Your task to perform on an android device: empty trash in google photos Image 0: 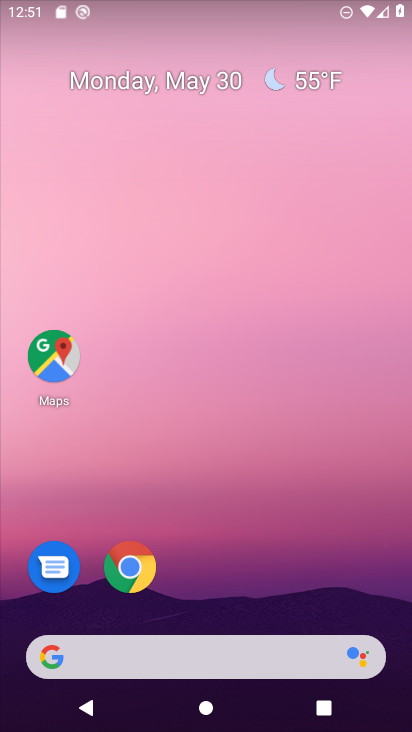
Step 0: drag from (209, 620) to (207, 119)
Your task to perform on an android device: empty trash in google photos Image 1: 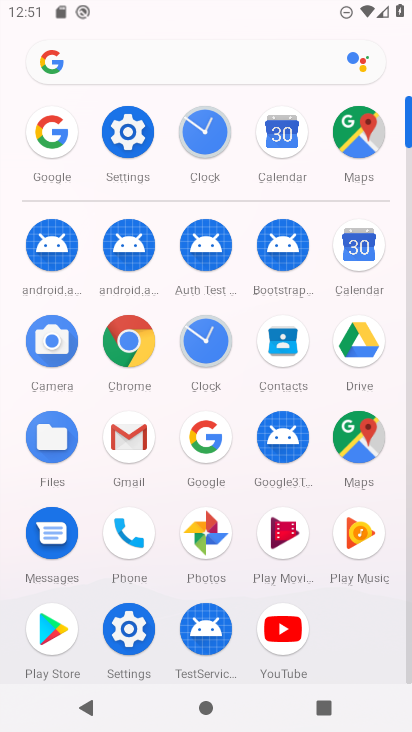
Step 1: click (201, 531)
Your task to perform on an android device: empty trash in google photos Image 2: 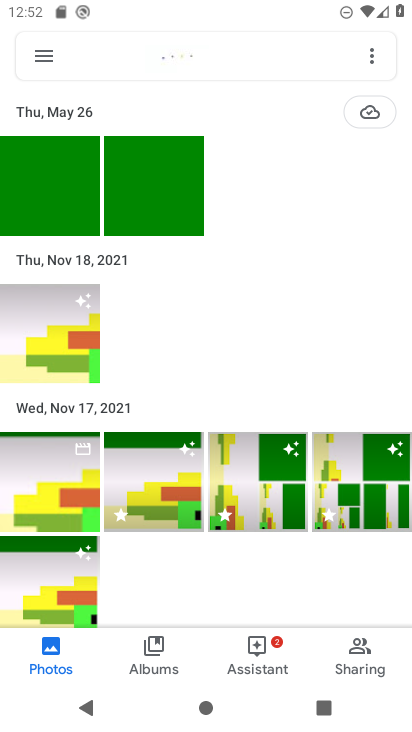
Step 2: drag from (185, 575) to (201, 188)
Your task to perform on an android device: empty trash in google photos Image 3: 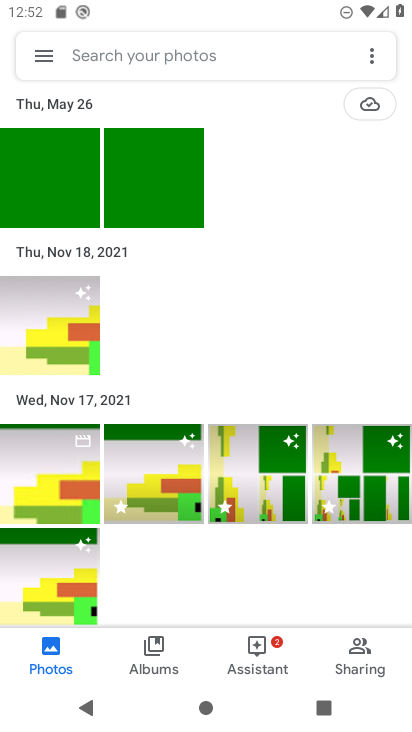
Step 3: drag from (199, 574) to (222, 213)
Your task to perform on an android device: empty trash in google photos Image 4: 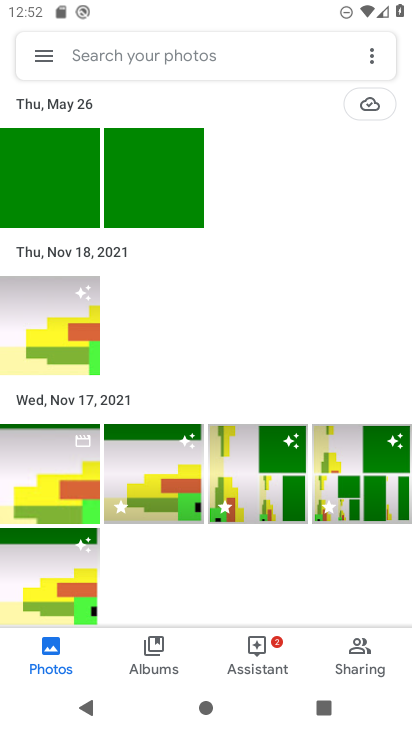
Step 4: click (363, 653)
Your task to perform on an android device: empty trash in google photos Image 5: 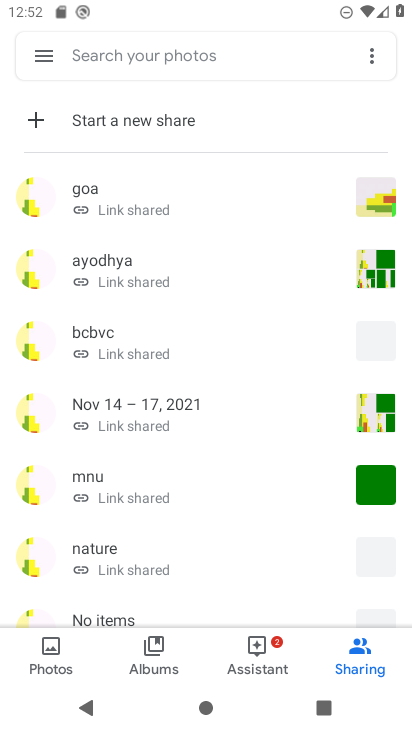
Step 5: click (44, 44)
Your task to perform on an android device: empty trash in google photos Image 6: 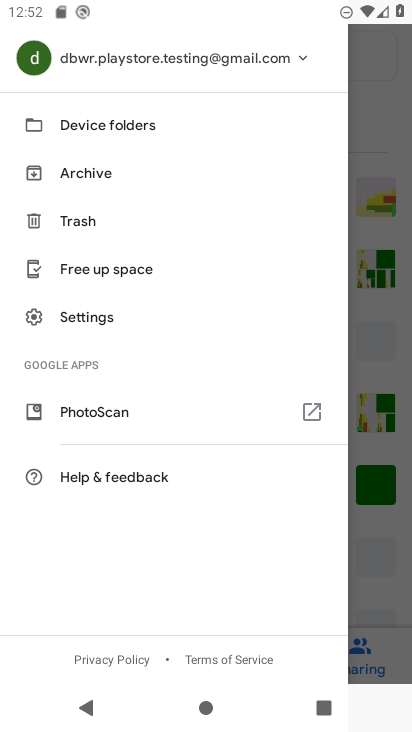
Step 6: click (94, 212)
Your task to perform on an android device: empty trash in google photos Image 7: 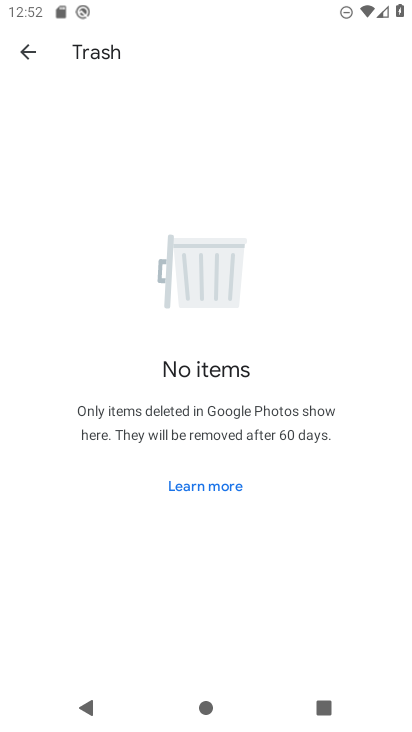
Step 7: task complete